Your task to perform on an android device: star an email in the gmail app Image 0: 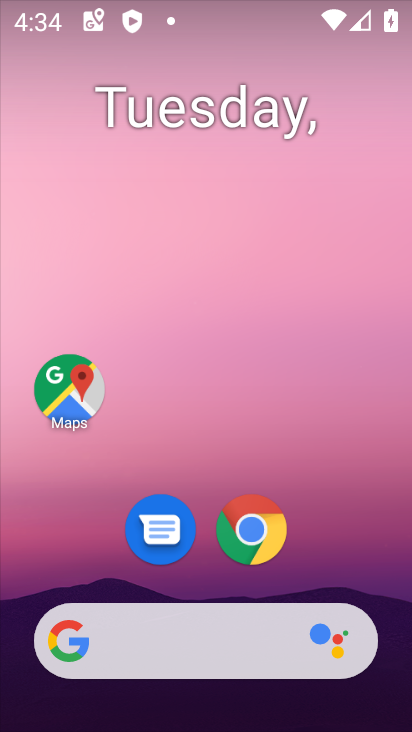
Step 0: drag from (335, 547) to (265, 13)
Your task to perform on an android device: star an email in the gmail app Image 1: 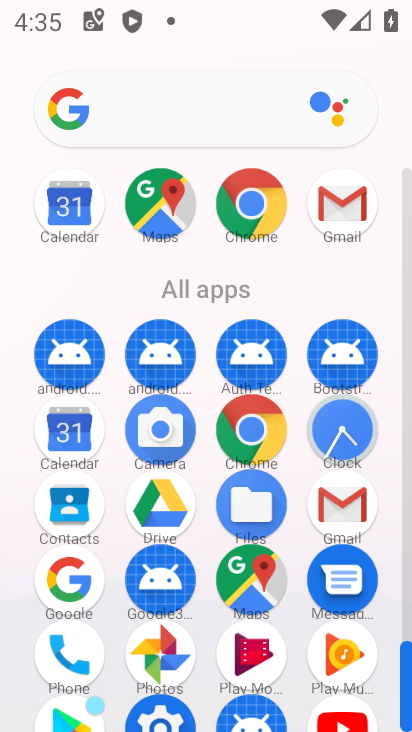
Step 1: drag from (10, 621) to (7, 312)
Your task to perform on an android device: star an email in the gmail app Image 2: 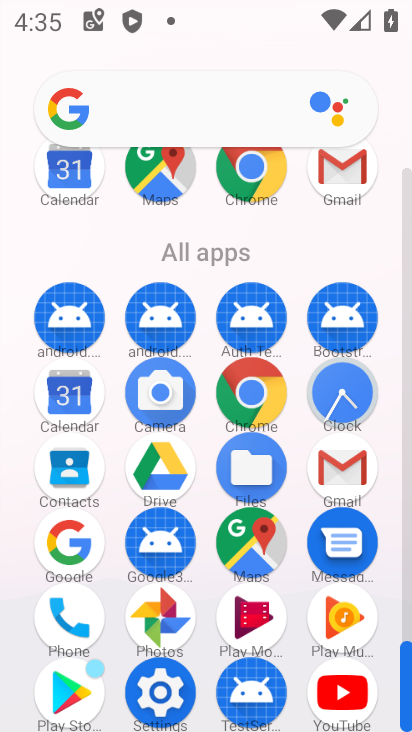
Step 2: drag from (1, 592) to (23, 219)
Your task to perform on an android device: star an email in the gmail app Image 3: 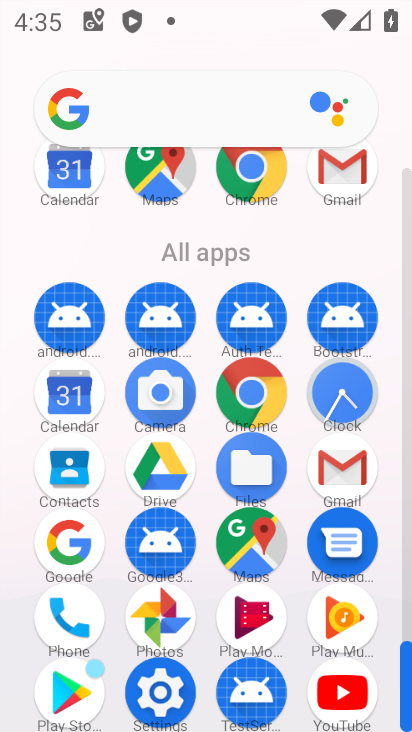
Step 3: click (338, 162)
Your task to perform on an android device: star an email in the gmail app Image 4: 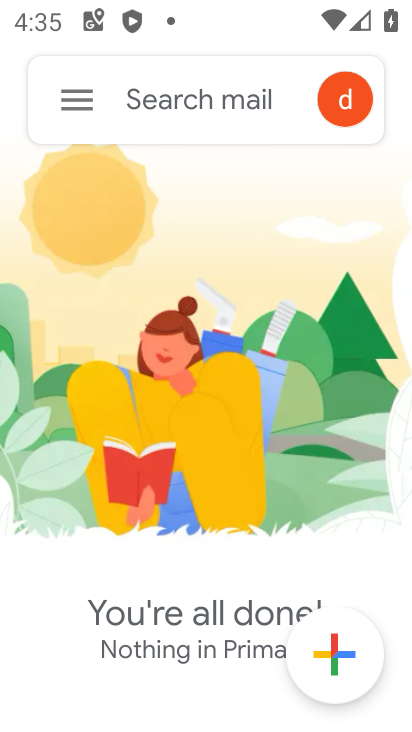
Step 4: click (79, 89)
Your task to perform on an android device: star an email in the gmail app Image 5: 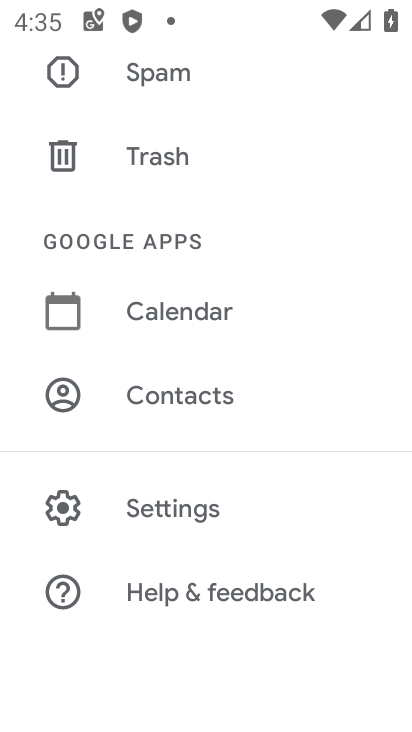
Step 5: drag from (179, 76) to (206, 556)
Your task to perform on an android device: star an email in the gmail app Image 6: 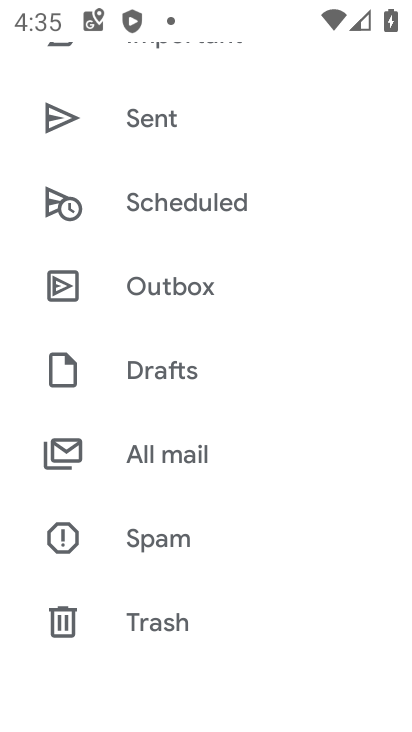
Step 6: drag from (187, 152) to (194, 576)
Your task to perform on an android device: star an email in the gmail app Image 7: 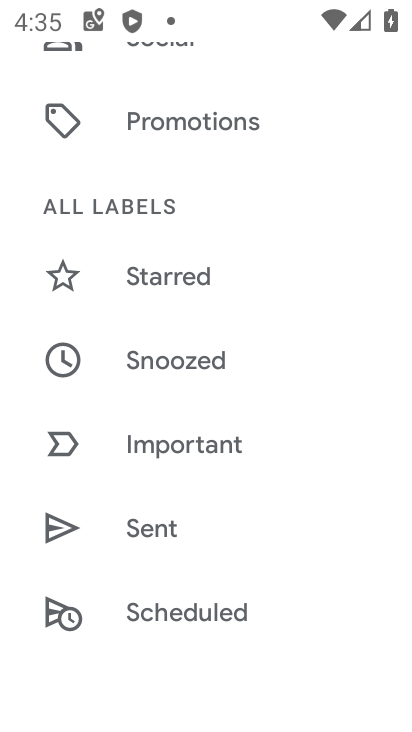
Step 7: drag from (176, 143) to (203, 635)
Your task to perform on an android device: star an email in the gmail app Image 8: 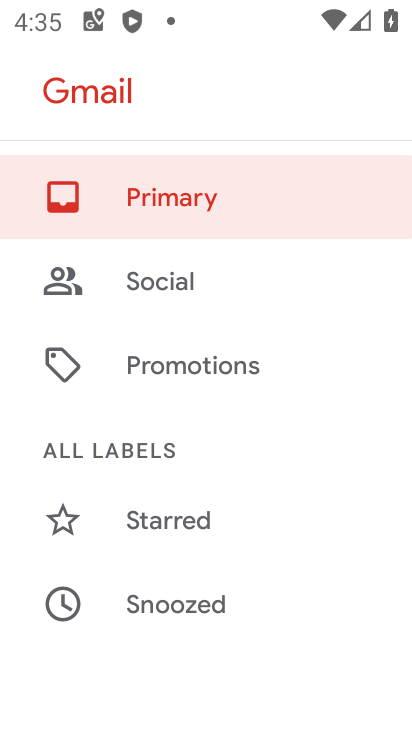
Step 8: drag from (210, 629) to (245, 265)
Your task to perform on an android device: star an email in the gmail app Image 9: 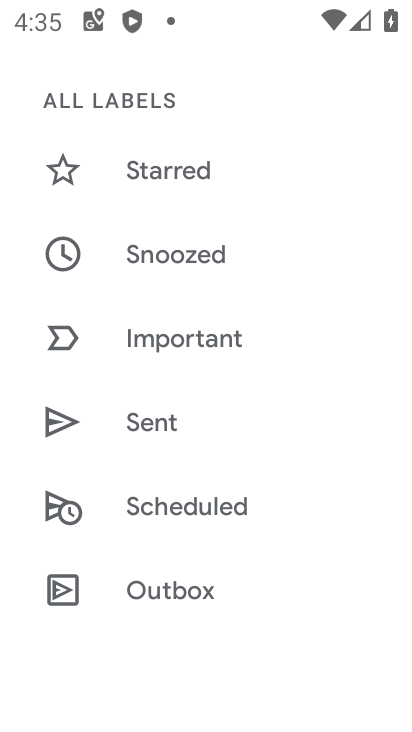
Step 9: click (187, 166)
Your task to perform on an android device: star an email in the gmail app Image 10: 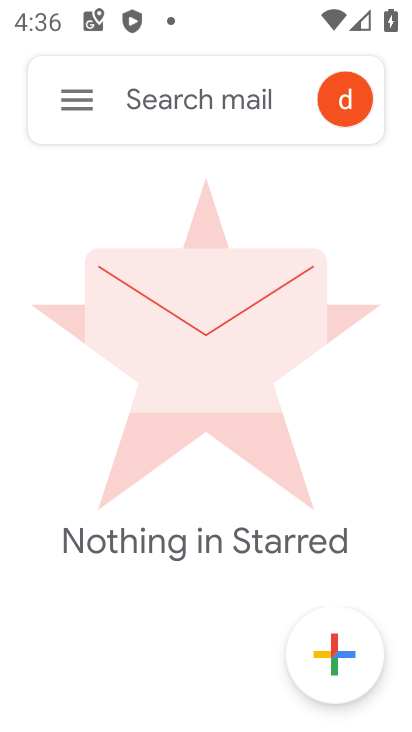
Step 10: task complete